Your task to perform on an android device: delete the emails in spam in the gmail app Image 0: 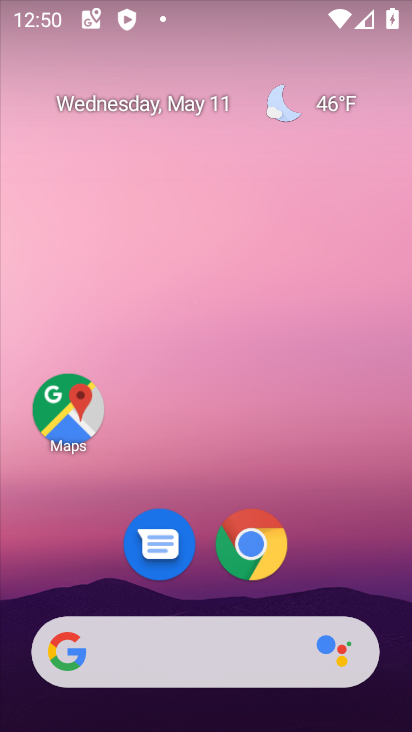
Step 0: drag from (400, 649) to (340, 224)
Your task to perform on an android device: delete the emails in spam in the gmail app Image 1: 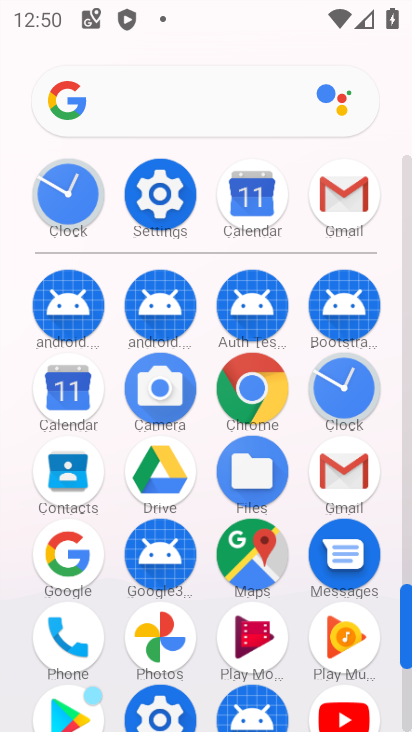
Step 1: click (405, 719)
Your task to perform on an android device: delete the emails in spam in the gmail app Image 2: 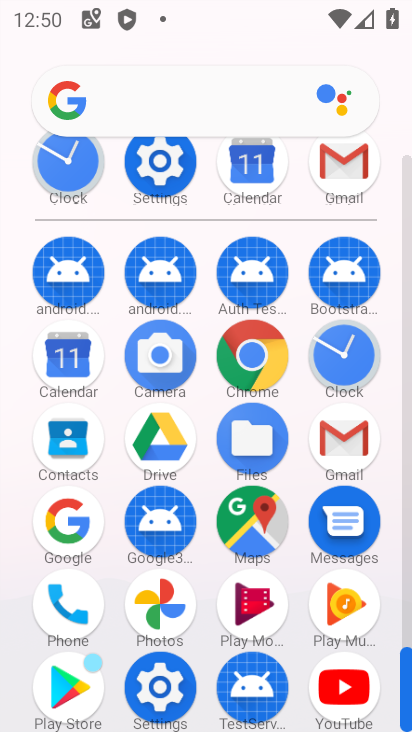
Step 2: click (342, 433)
Your task to perform on an android device: delete the emails in spam in the gmail app Image 3: 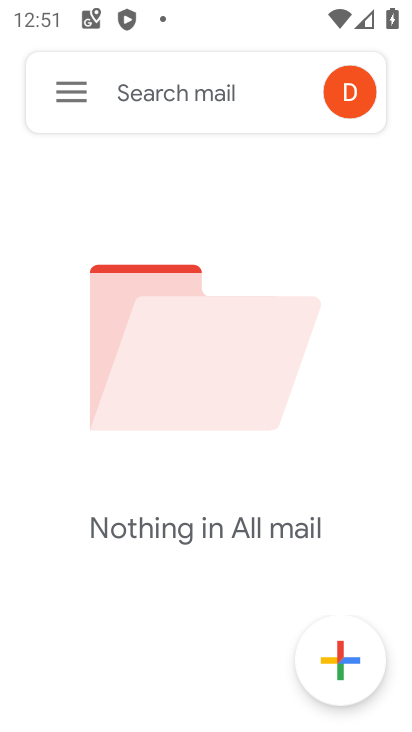
Step 3: click (62, 82)
Your task to perform on an android device: delete the emails in spam in the gmail app Image 4: 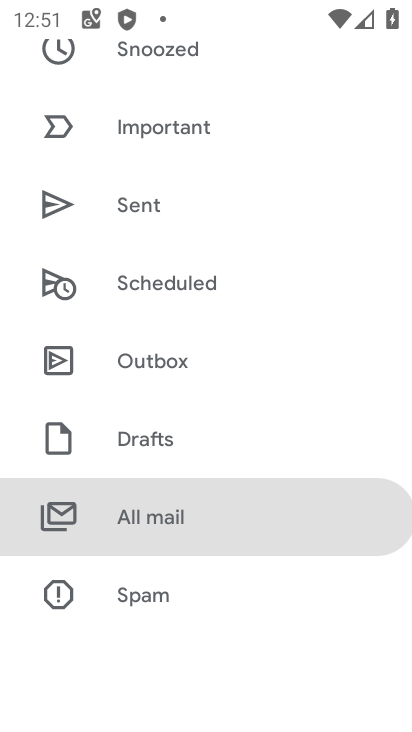
Step 4: click (155, 589)
Your task to perform on an android device: delete the emails in spam in the gmail app Image 5: 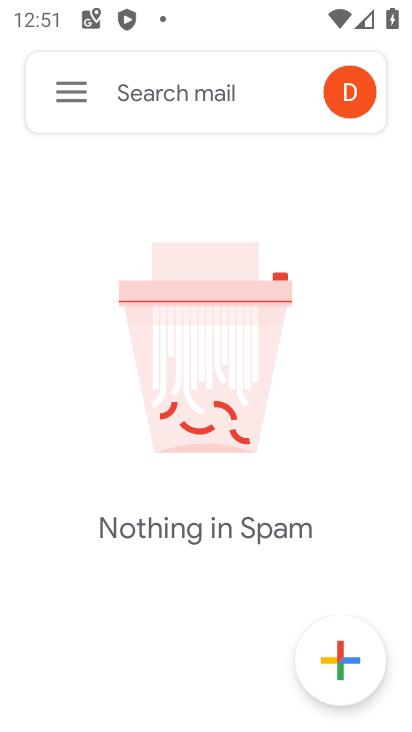
Step 5: task complete